Your task to perform on an android device: change text size in settings app Image 0: 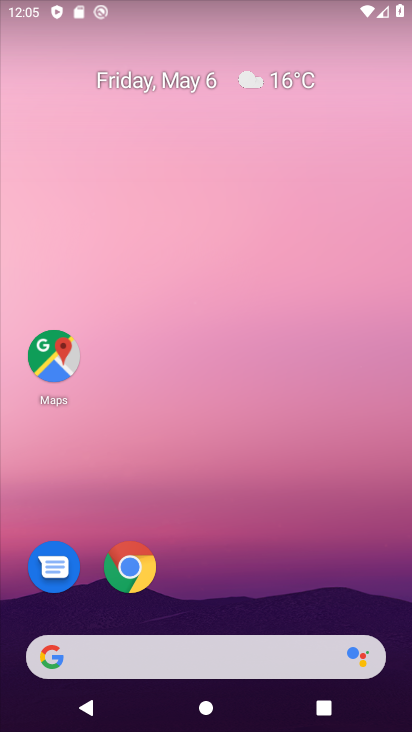
Step 0: drag from (268, 583) to (297, 17)
Your task to perform on an android device: change text size in settings app Image 1: 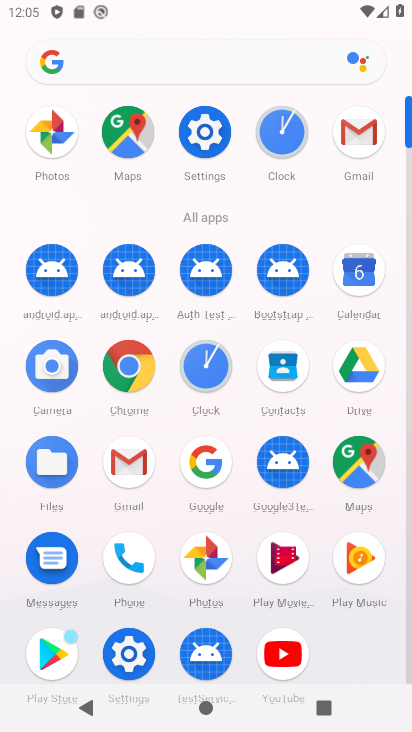
Step 1: click (188, 133)
Your task to perform on an android device: change text size in settings app Image 2: 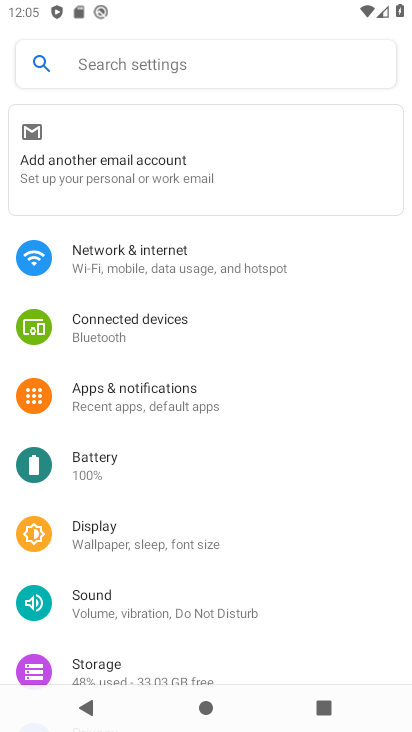
Step 2: click (192, 537)
Your task to perform on an android device: change text size in settings app Image 3: 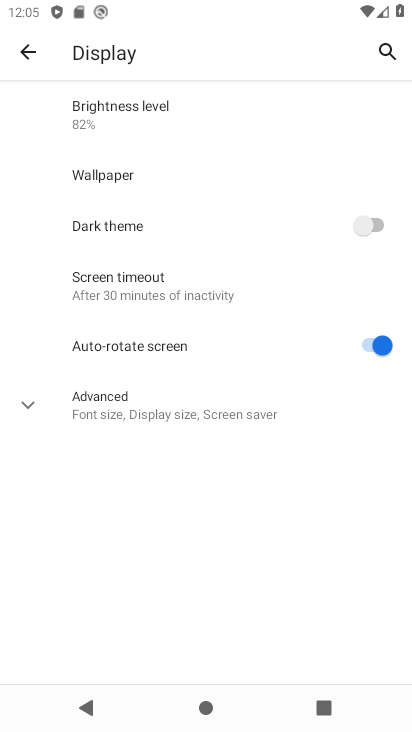
Step 3: click (138, 409)
Your task to perform on an android device: change text size in settings app Image 4: 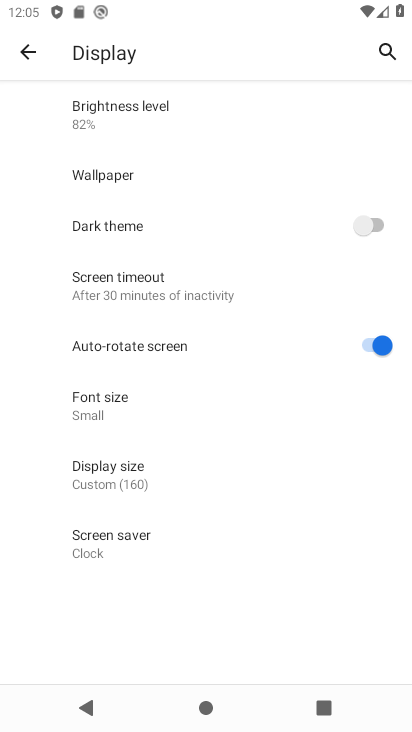
Step 4: click (106, 416)
Your task to perform on an android device: change text size in settings app Image 5: 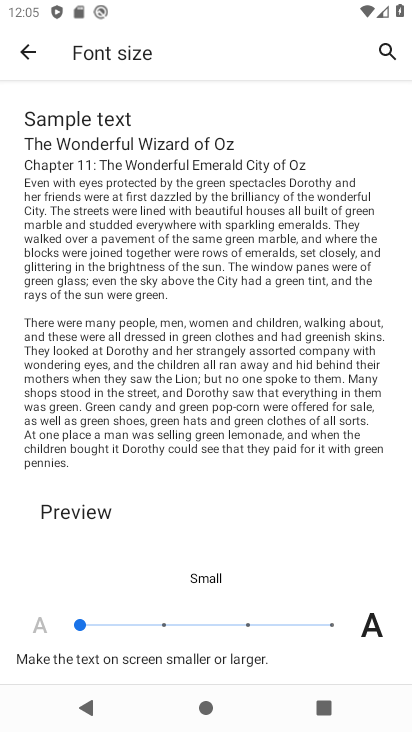
Step 5: click (132, 623)
Your task to perform on an android device: change text size in settings app Image 6: 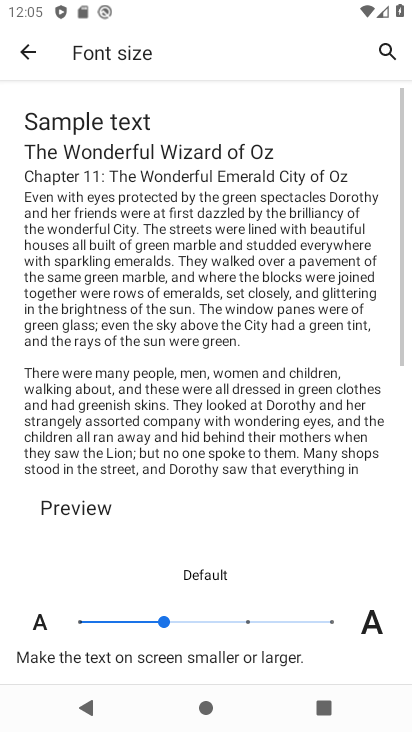
Step 6: task complete